Your task to perform on an android device: What is the news today? Image 0: 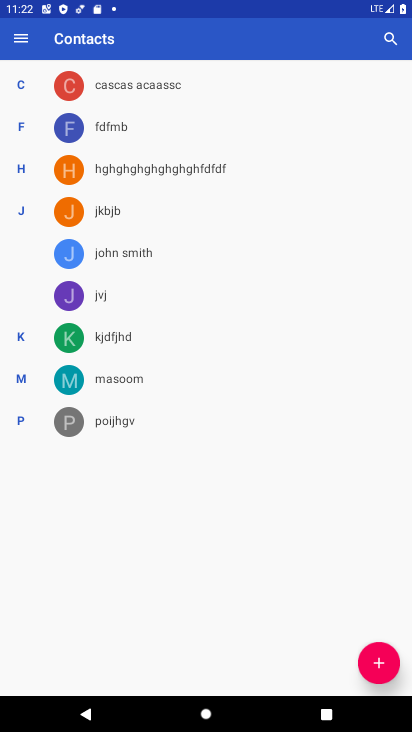
Step 0: press home button
Your task to perform on an android device: What is the news today? Image 1: 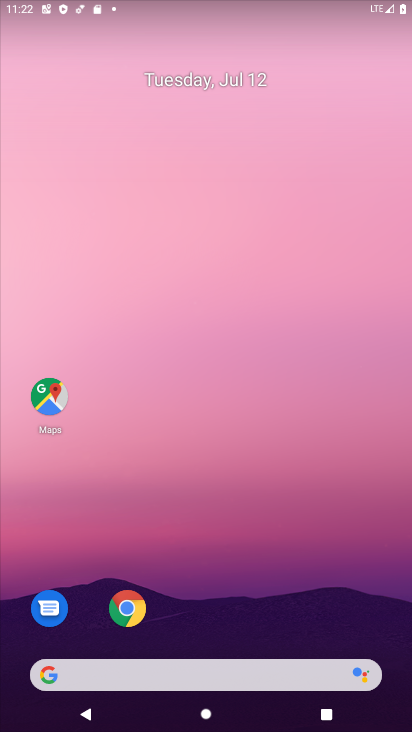
Step 1: click (163, 671)
Your task to perform on an android device: What is the news today? Image 2: 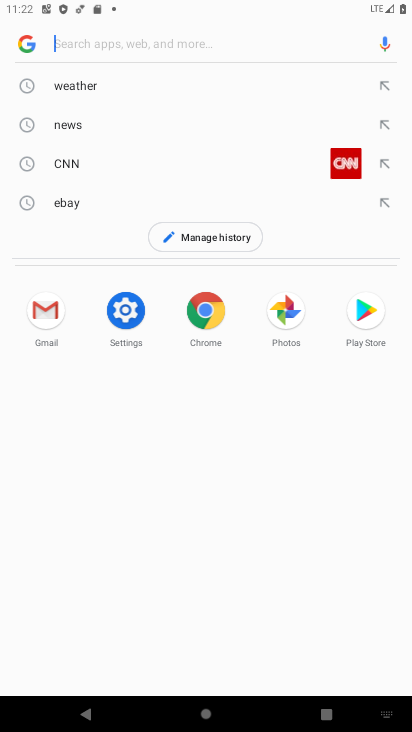
Step 2: click (83, 131)
Your task to perform on an android device: What is the news today? Image 3: 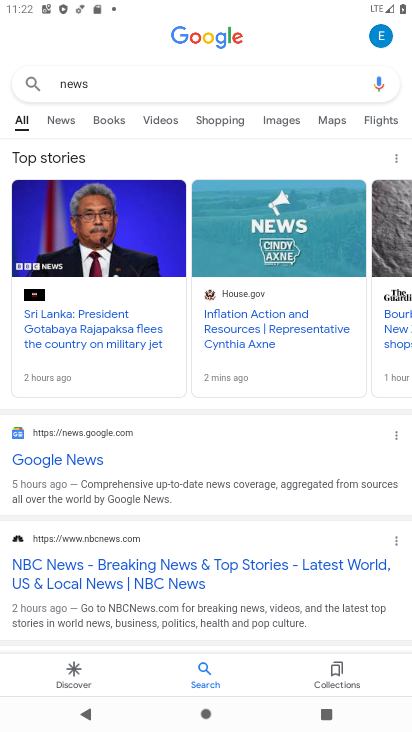
Step 3: task complete